Your task to perform on an android device: turn off notifications in google photos Image 0: 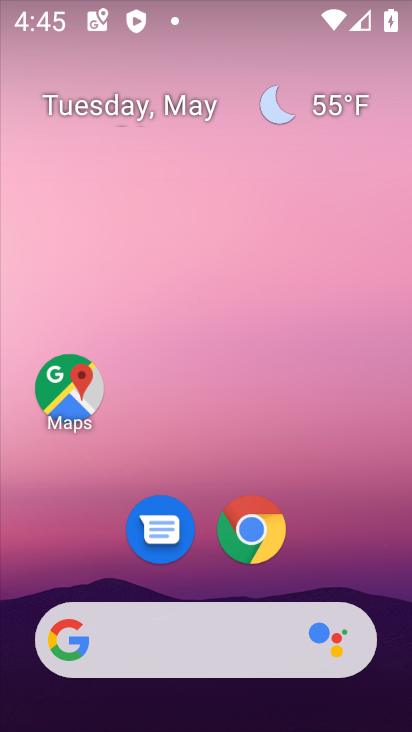
Step 0: drag from (250, 688) to (173, 123)
Your task to perform on an android device: turn off notifications in google photos Image 1: 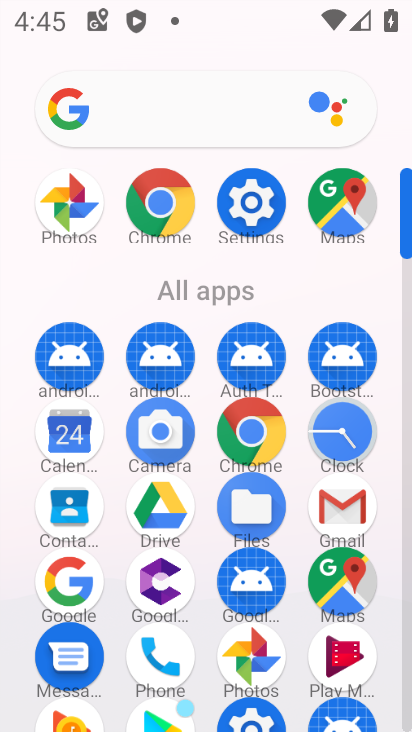
Step 1: click (256, 649)
Your task to perform on an android device: turn off notifications in google photos Image 2: 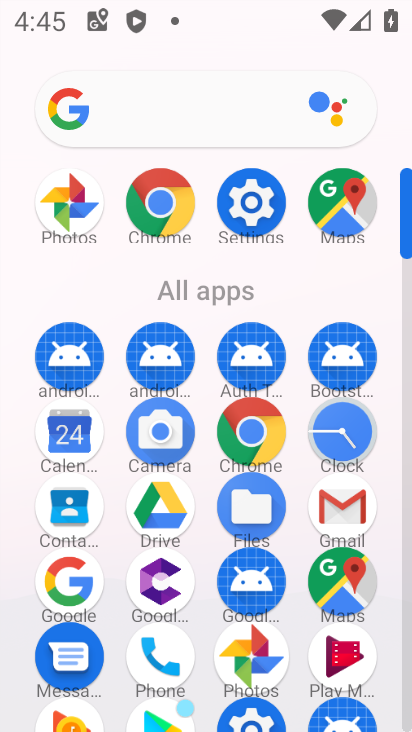
Step 2: click (256, 649)
Your task to perform on an android device: turn off notifications in google photos Image 3: 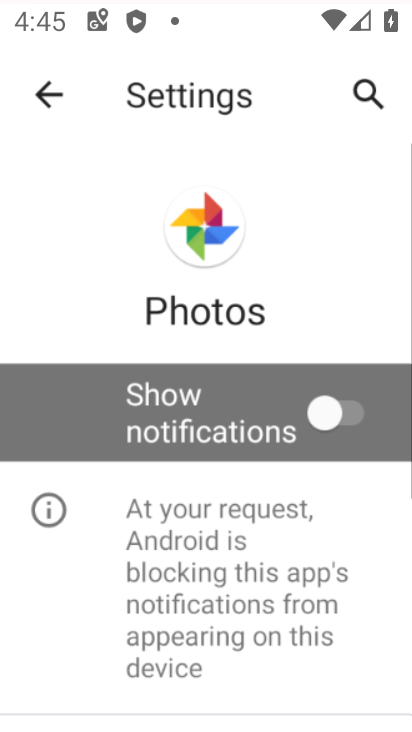
Step 3: click (255, 649)
Your task to perform on an android device: turn off notifications in google photos Image 4: 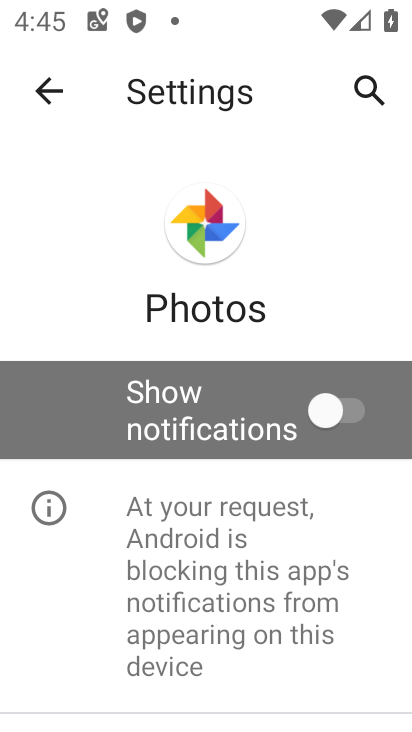
Step 4: click (317, 419)
Your task to perform on an android device: turn off notifications in google photos Image 5: 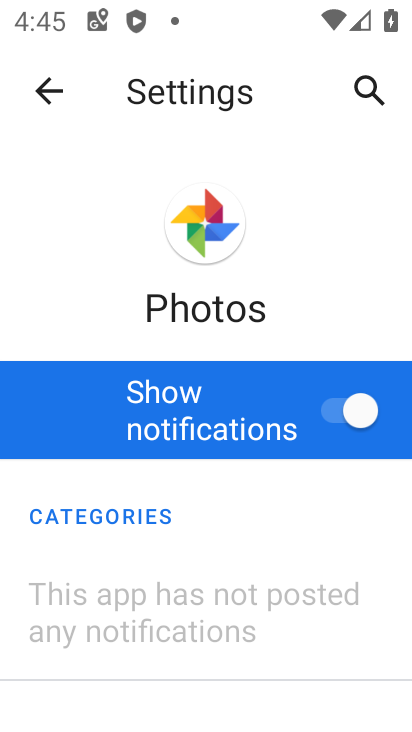
Step 5: task complete